Your task to perform on an android device: What is the recent news? Image 0: 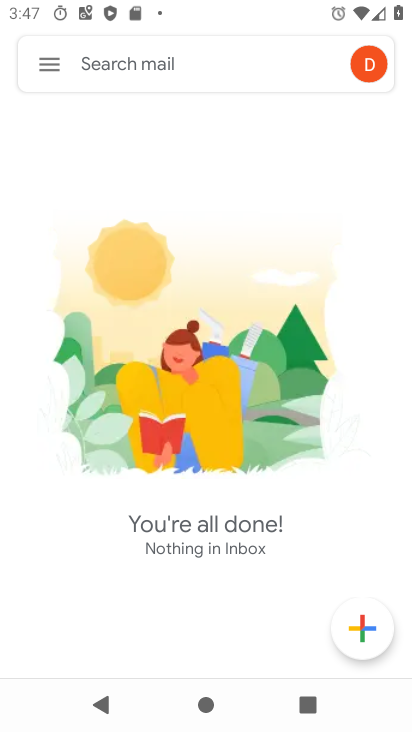
Step 0: press home button
Your task to perform on an android device: What is the recent news? Image 1: 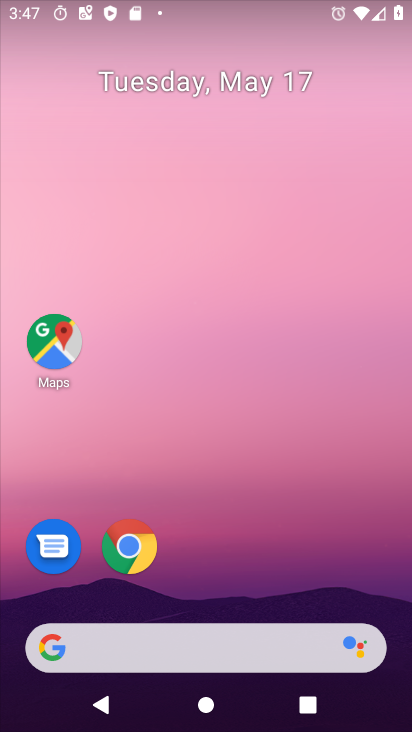
Step 1: drag from (264, 622) to (270, 123)
Your task to perform on an android device: What is the recent news? Image 2: 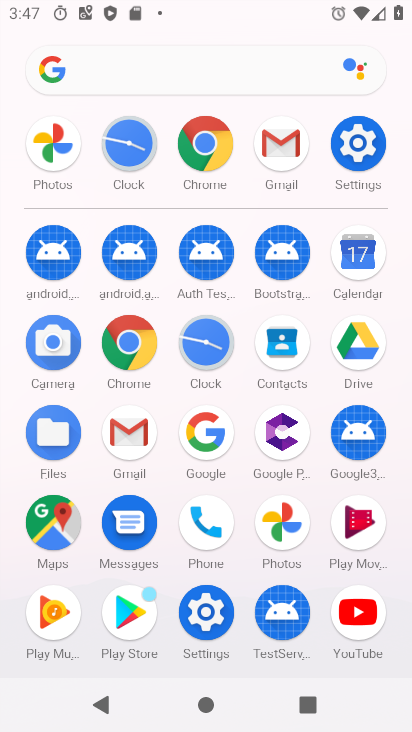
Step 2: click (215, 443)
Your task to perform on an android device: What is the recent news? Image 3: 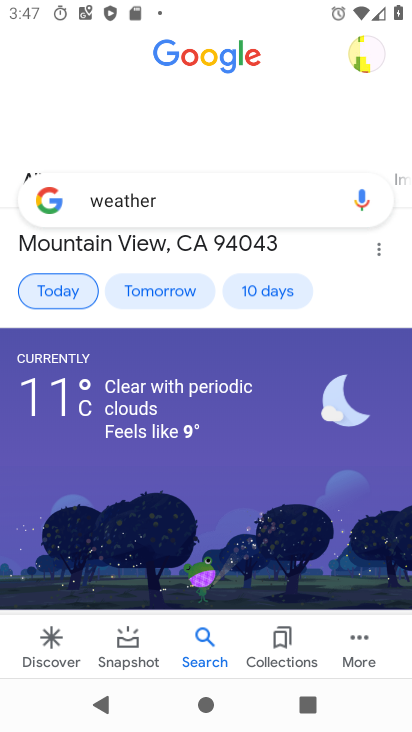
Step 3: click (212, 191)
Your task to perform on an android device: What is the recent news? Image 4: 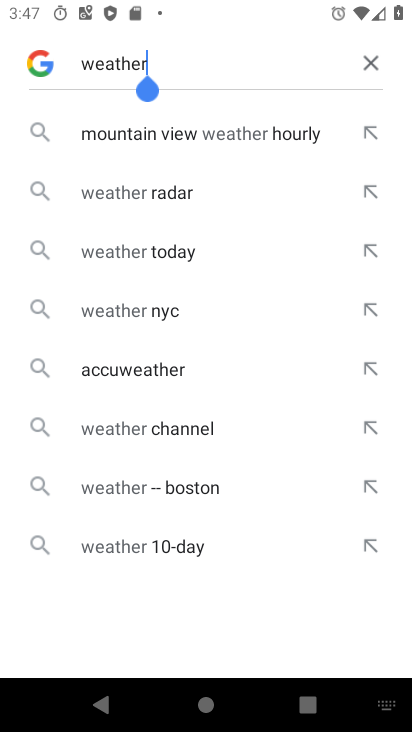
Step 4: click (371, 64)
Your task to perform on an android device: What is the recent news? Image 5: 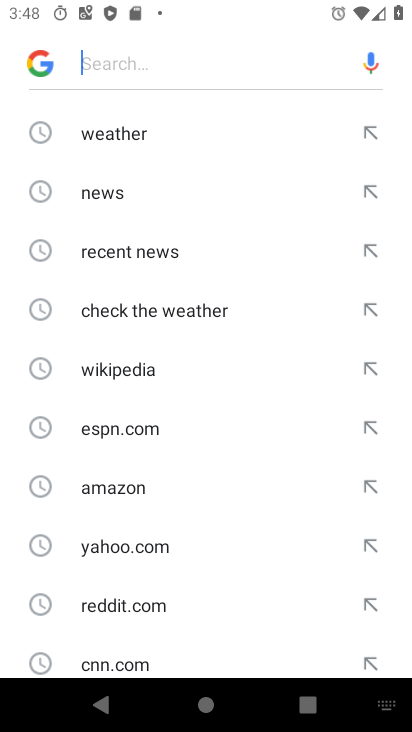
Step 5: click (178, 250)
Your task to perform on an android device: What is the recent news? Image 6: 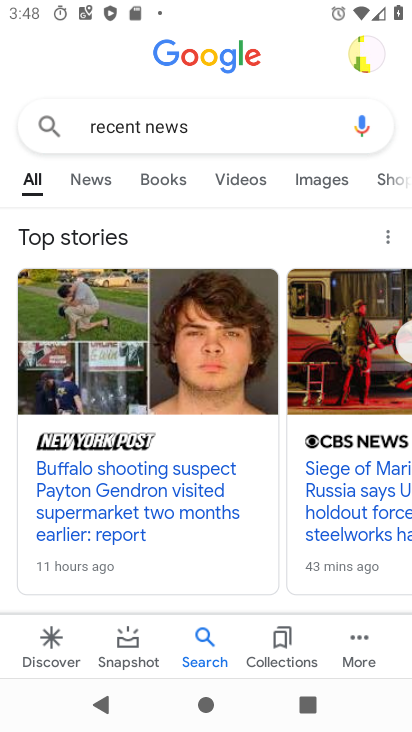
Step 6: task complete